Your task to perform on an android device: Is it going to rain today? Image 0: 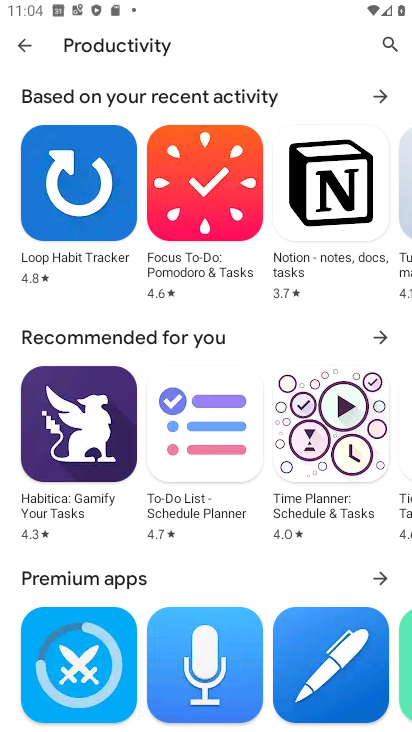
Step 0: press home button
Your task to perform on an android device: Is it going to rain today? Image 1: 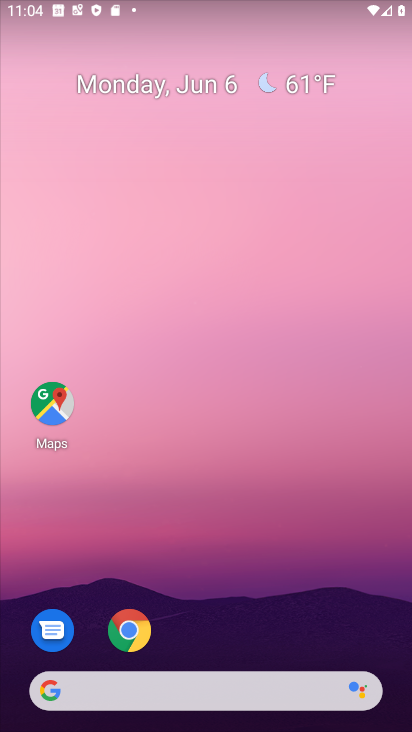
Step 1: drag from (346, 596) to (311, 107)
Your task to perform on an android device: Is it going to rain today? Image 2: 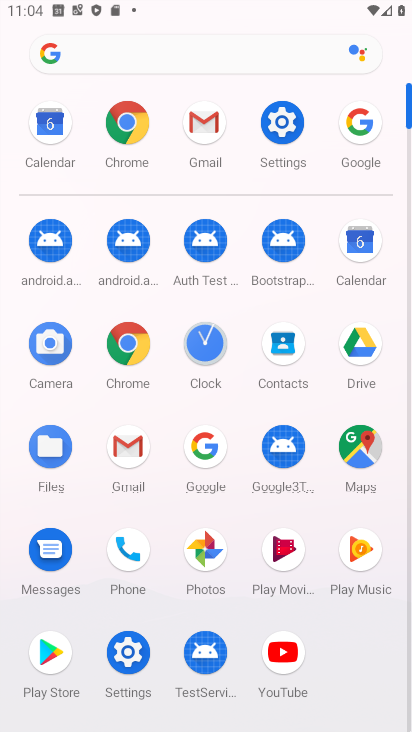
Step 2: click (146, 339)
Your task to perform on an android device: Is it going to rain today? Image 3: 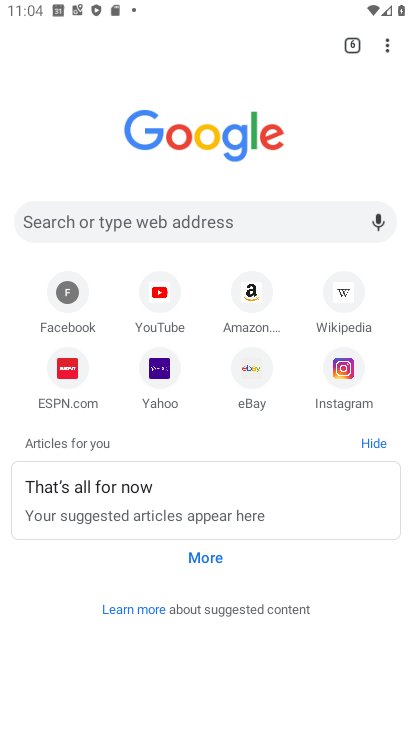
Step 3: click (170, 226)
Your task to perform on an android device: Is it going to rain today? Image 4: 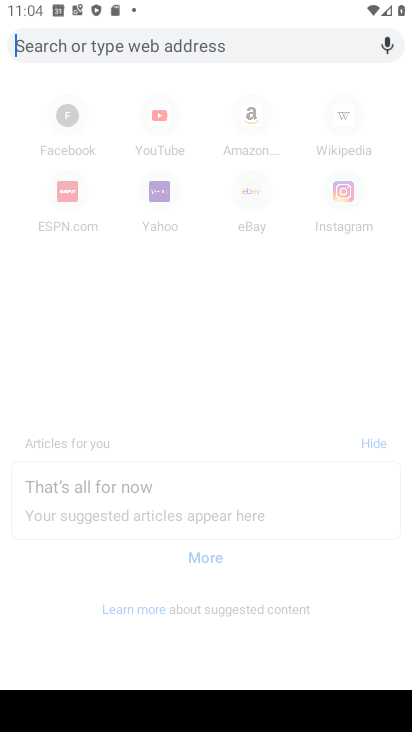
Step 4: type "is it going to rain today"
Your task to perform on an android device: Is it going to rain today? Image 5: 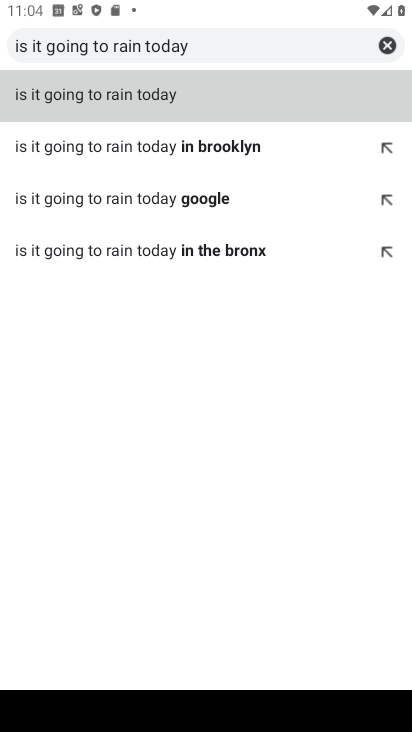
Step 5: click (152, 94)
Your task to perform on an android device: Is it going to rain today? Image 6: 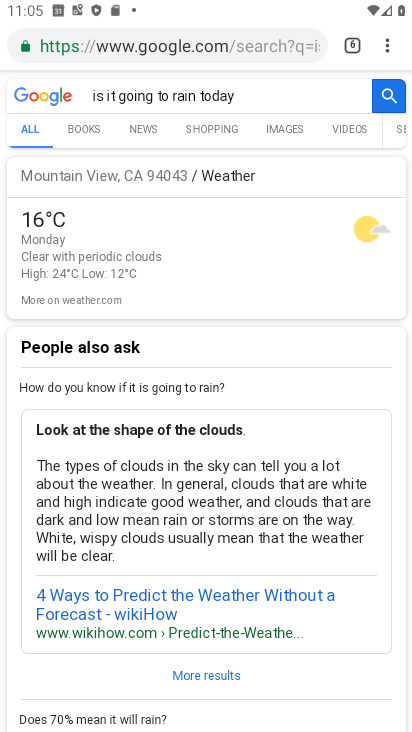
Step 6: task complete